Your task to perform on an android device: install app "Paramount+ | Peak Streaming" Image 0: 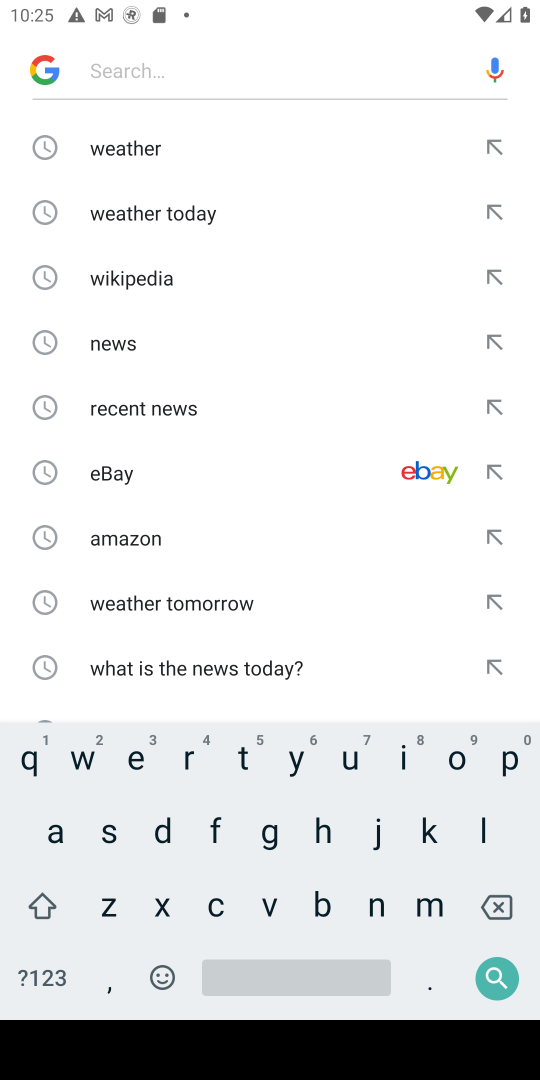
Step 0: press home button
Your task to perform on an android device: install app "Paramount+ | Peak Streaming" Image 1: 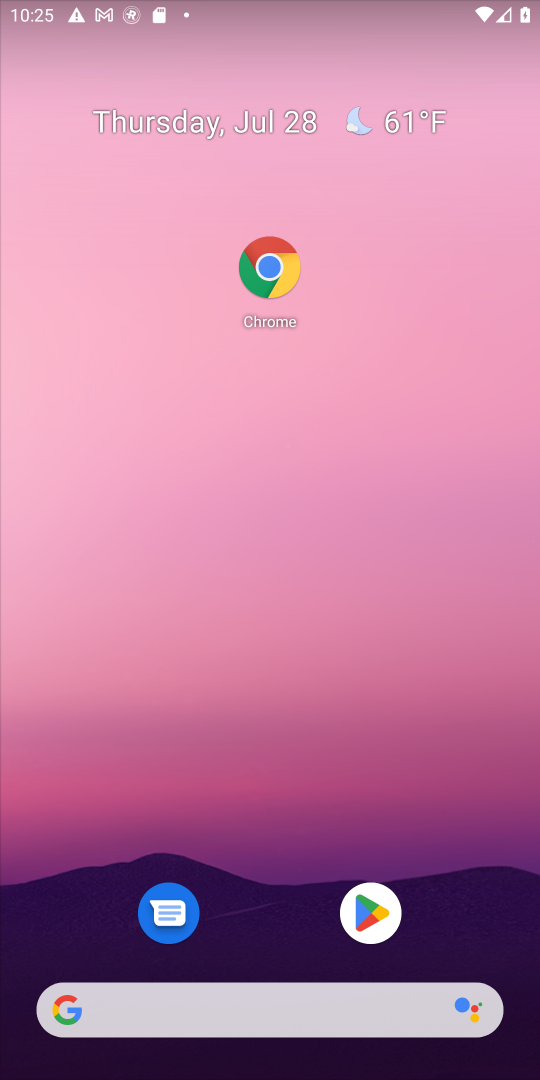
Step 1: click (368, 906)
Your task to perform on an android device: install app "Paramount+ | Peak Streaming" Image 2: 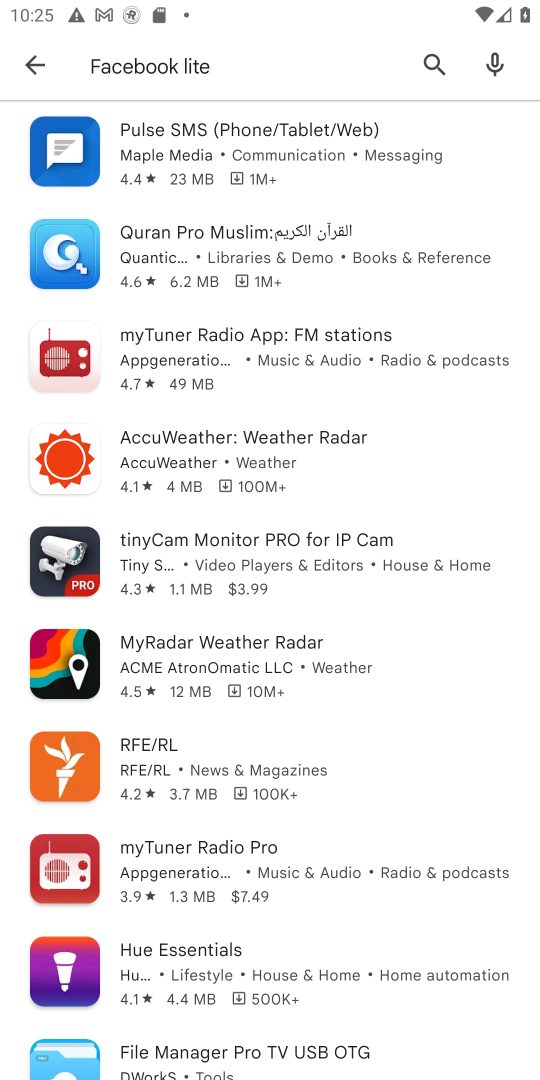
Step 2: click (419, 63)
Your task to perform on an android device: install app "Paramount+ | Peak Streaming" Image 3: 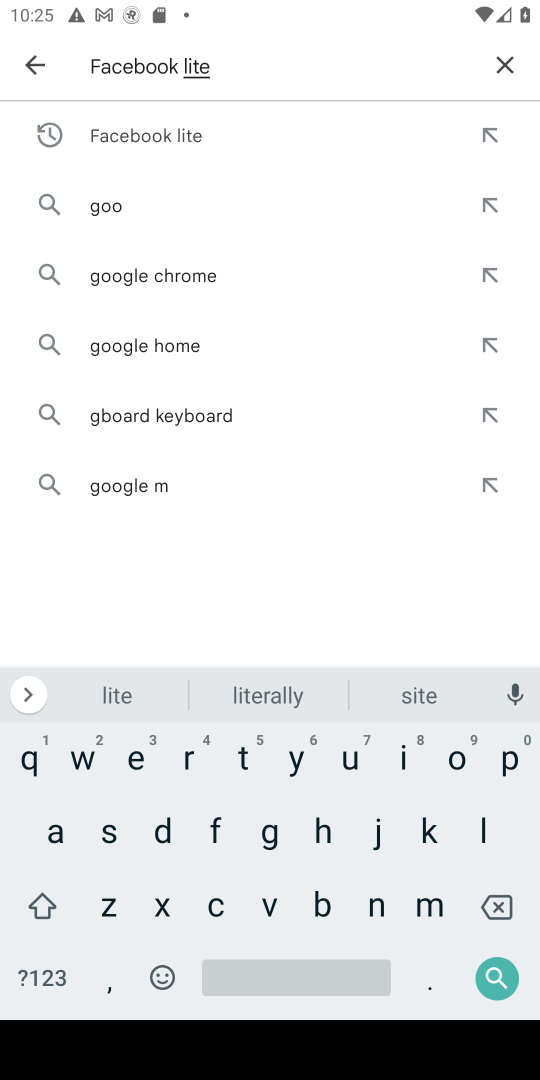
Step 3: click (503, 59)
Your task to perform on an android device: install app "Paramount+ | Peak Streaming" Image 4: 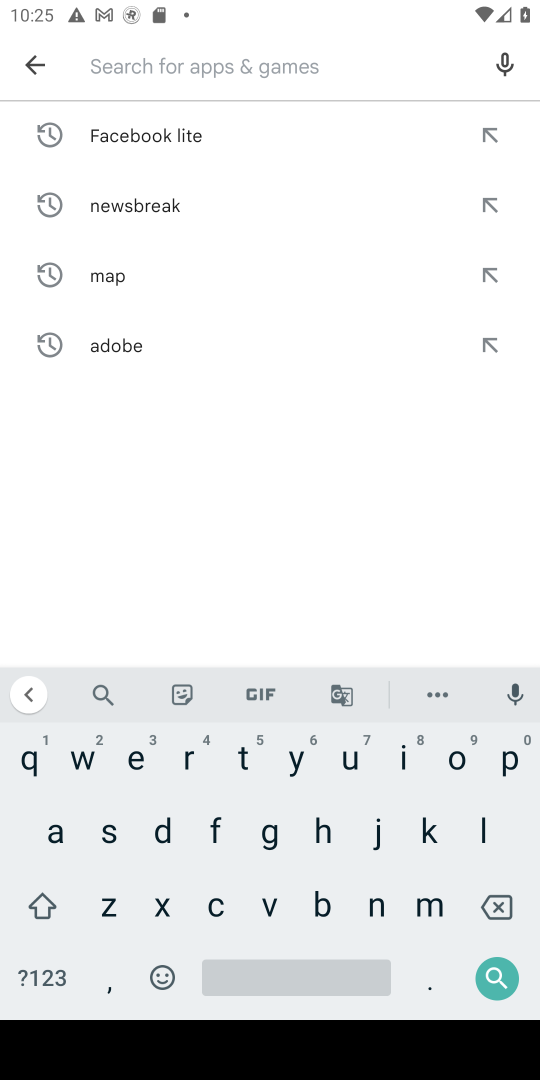
Step 4: click (515, 760)
Your task to perform on an android device: install app "Paramount+ | Peak Streaming" Image 5: 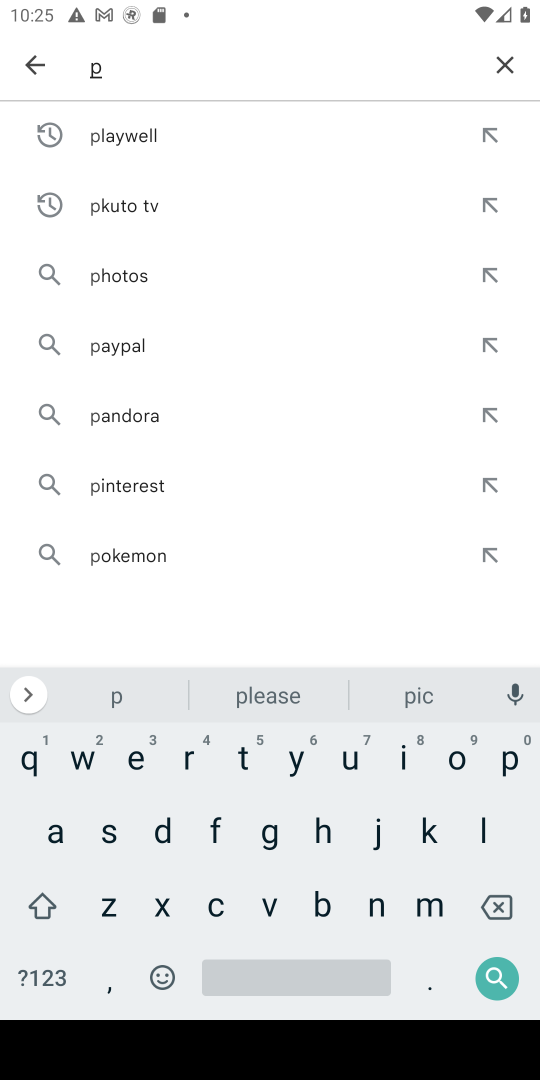
Step 5: click (36, 841)
Your task to perform on an android device: install app "Paramount+ | Peak Streaming" Image 6: 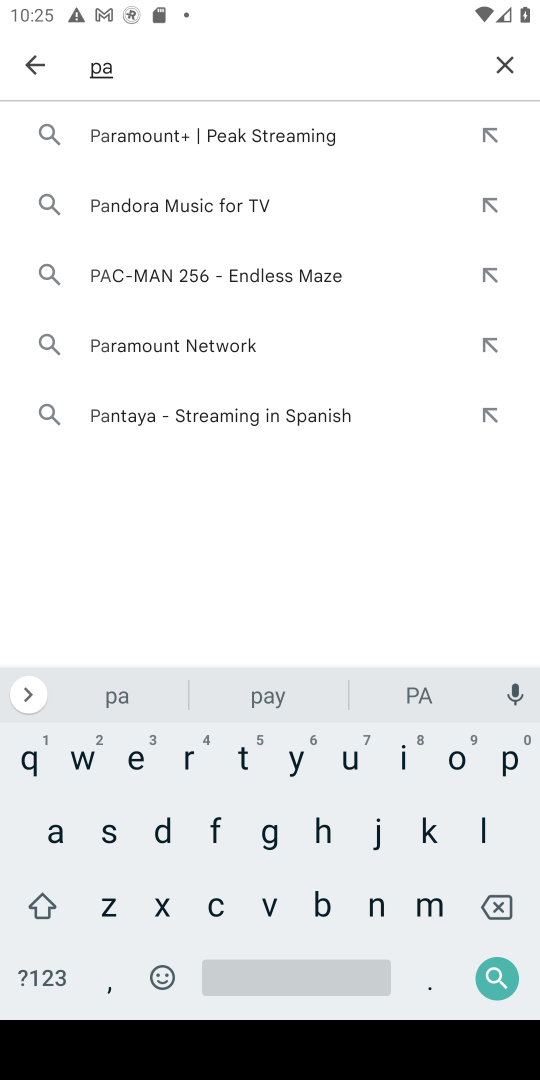
Step 6: click (104, 131)
Your task to perform on an android device: install app "Paramount+ | Peak Streaming" Image 7: 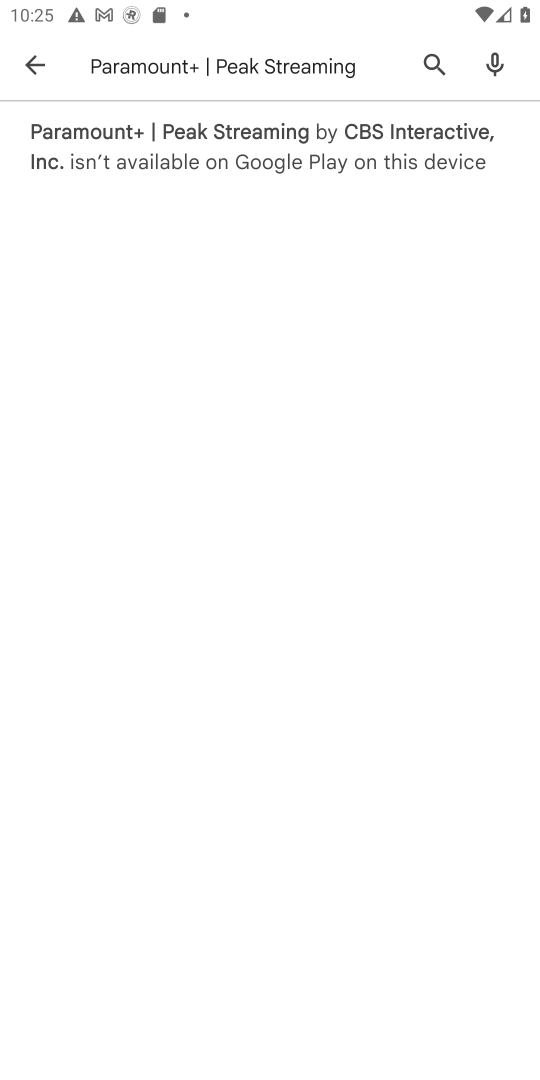
Step 7: click (107, 142)
Your task to perform on an android device: install app "Paramount+ | Peak Streaming" Image 8: 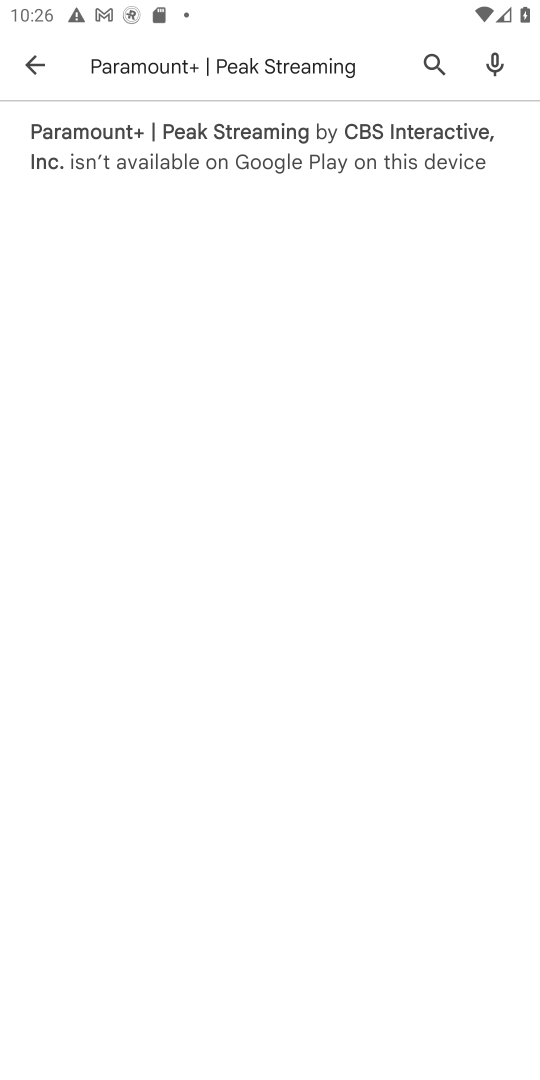
Step 8: click (107, 142)
Your task to perform on an android device: install app "Paramount+ | Peak Streaming" Image 9: 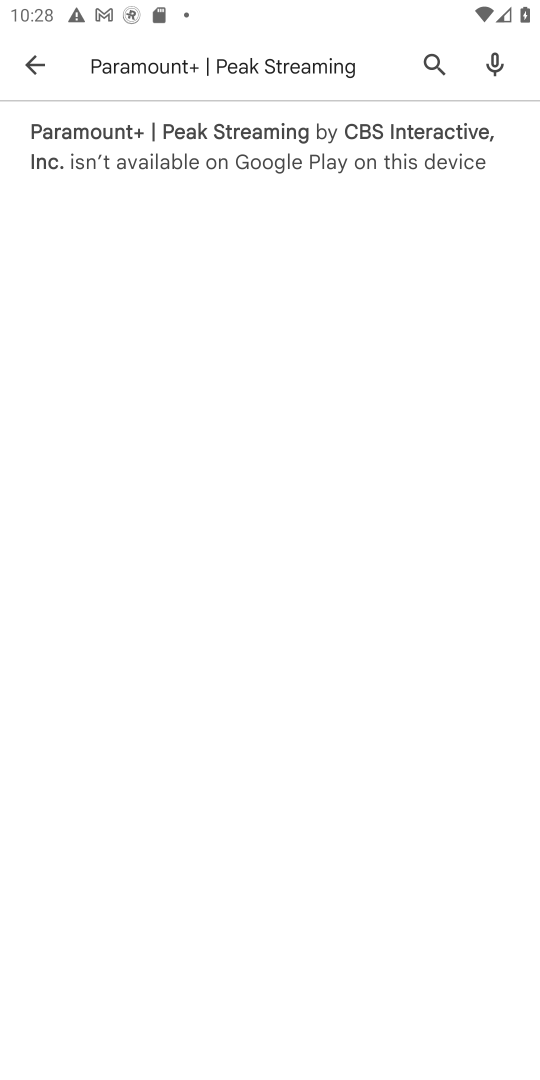
Step 9: task complete